Your task to perform on an android device: Set the phone to "Do not disturb". Image 0: 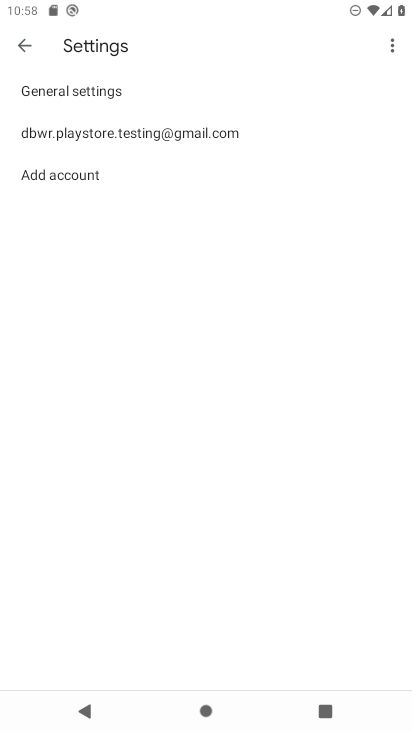
Step 0: press home button
Your task to perform on an android device: Set the phone to "Do not disturb". Image 1: 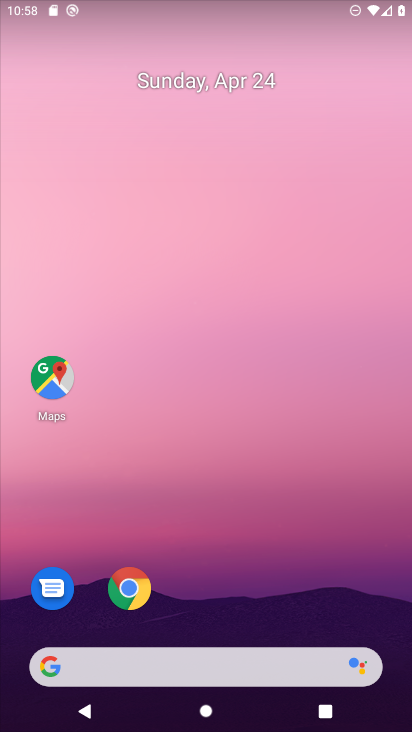
Step 1: drag from (192, 656) to (149, 13)
Your task to perform on an android device: Set the phone to "Do not disturb". Image 2: 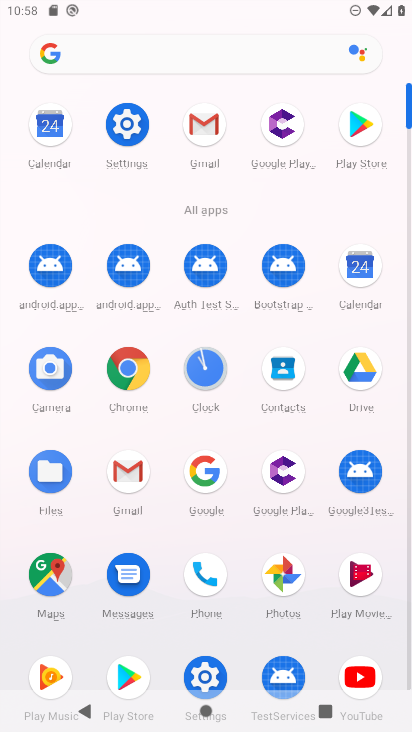
Step 2: click (119, 115)
Your task to perform on an android device: Set the phone to "Do not disturb". Image 3: 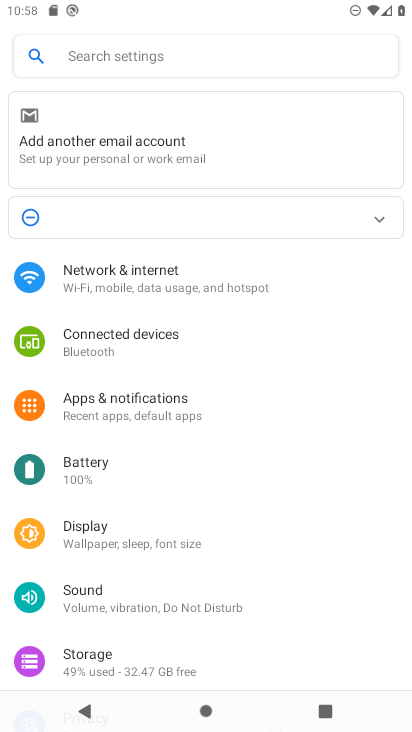
Step 3: click (85, 586)
Your task to perform on an android device: Set the phone to "Do not disturb". Image 4: 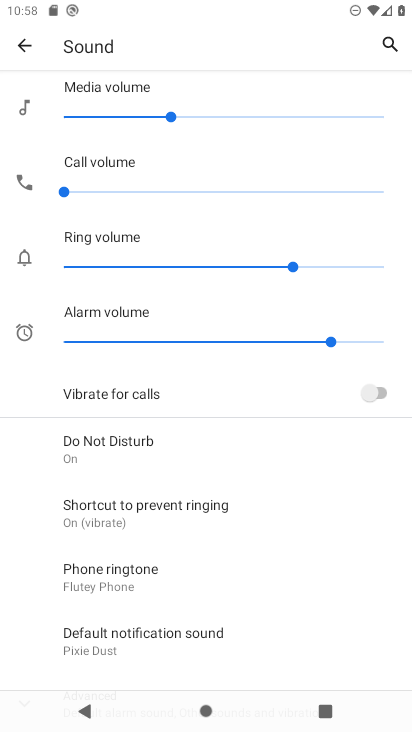
Step 4: click (114, 452)
Your task to perform on an android device: Set the phone to "Do not disturb". Image 5: 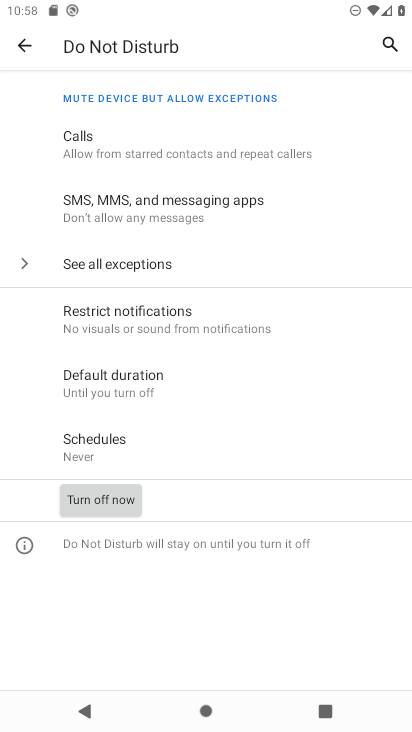
Step 5: task complete